Your task to perform on an android device: toggle notifications settings in the gmail app Image 0: 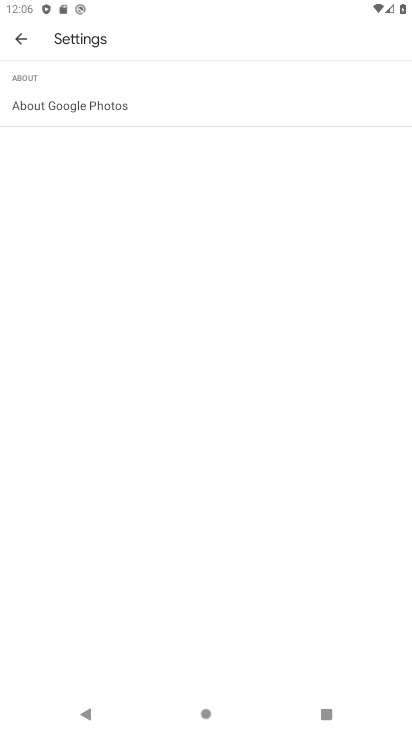
Step 0: press home button
Your task to perform on an android device: toggle notifications settings in the gmail app Image 1: 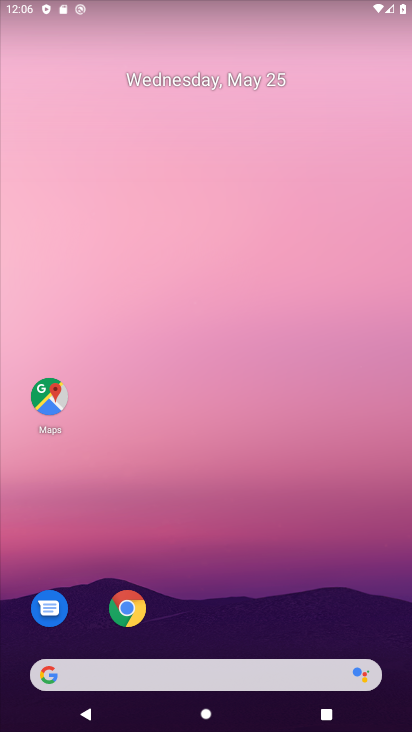
Step 1: drag from (268, 630) to (207, 179)
Your task to perform on an android device: toggle notifications settings in the gmail app Image 2: 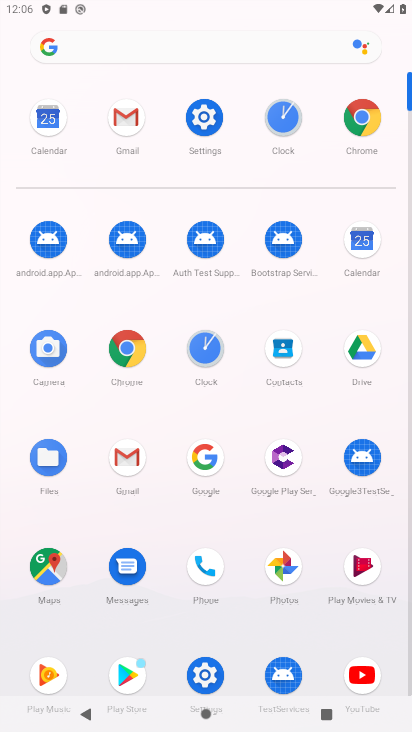
Step 2: click (137, 145)
Your task to perform on an android device: toggle notifications settings in the gmail app Image 3: 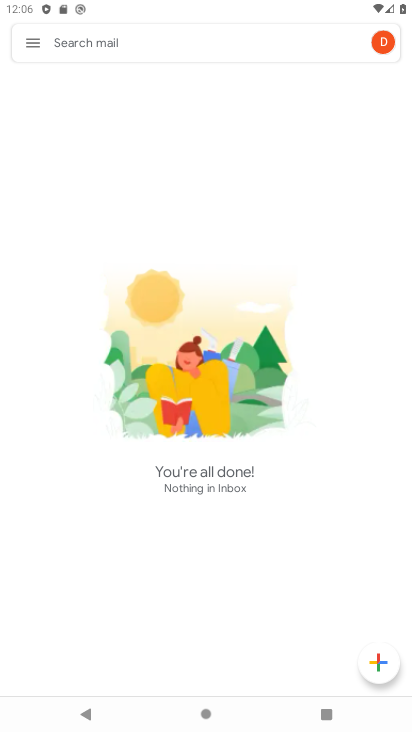
Step 3: click (38, 53)
Your task to perform on an android device: toggle notifications settings in the gmail app Image 4: 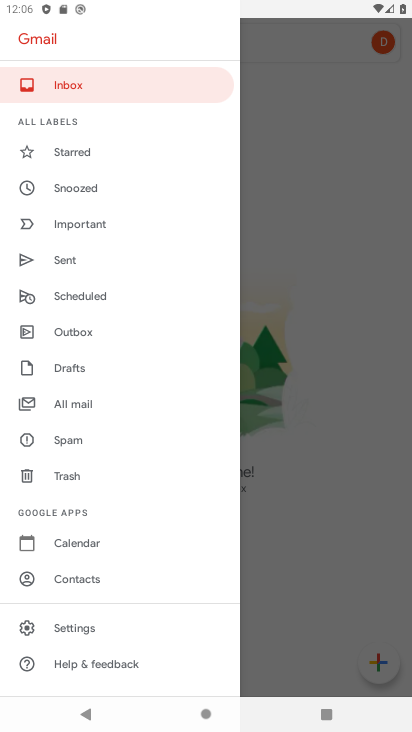
Step 4: click (95, 629)
Your task to perform on an android device: toggle notifications settings in the gmail app Image 5: 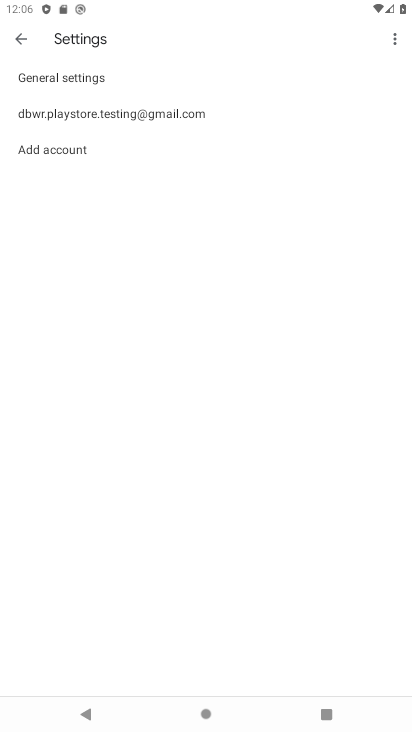
Step 5: click (94, 75)
Your task to perform on an android device: toggle notifications settings in the gmail app Image 6: 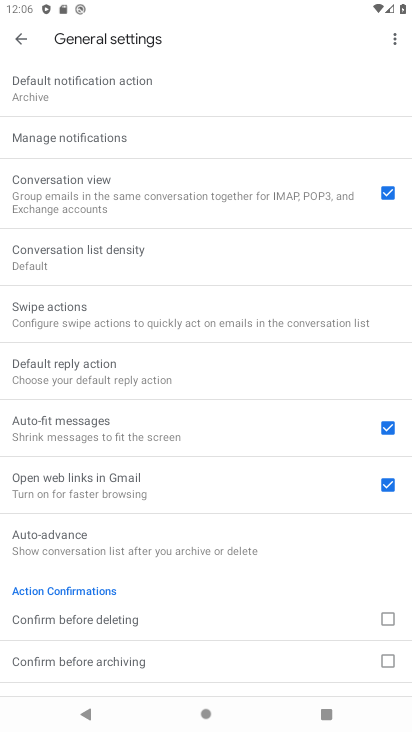
Step 6: click (126, 153)
Your task to perform on an android device: toggle notifications settings in the gmail app Image 7: 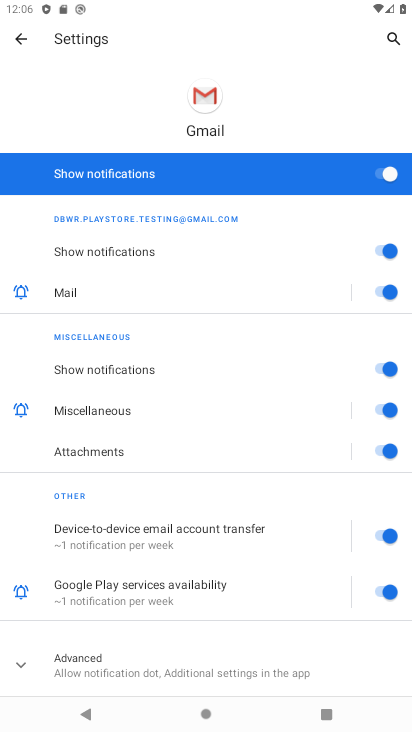
Step 7: click (129, 181)
Your task to perform on an android device: toggle notifications settings in the gmail app Image 8: 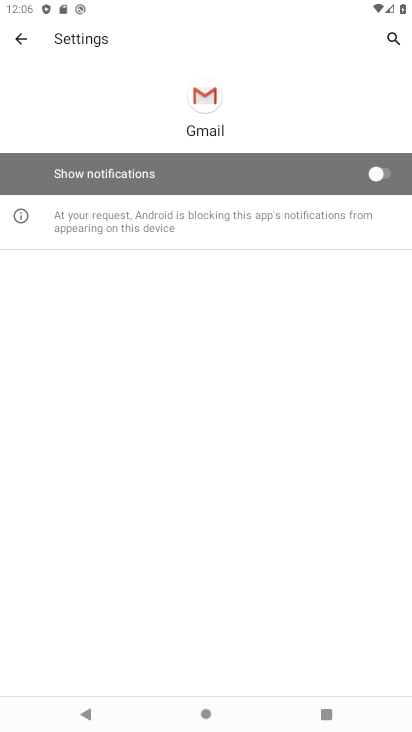
Step 8: task complete